Your task to perform on an android device: snooze an email in the gmail app Image 0: 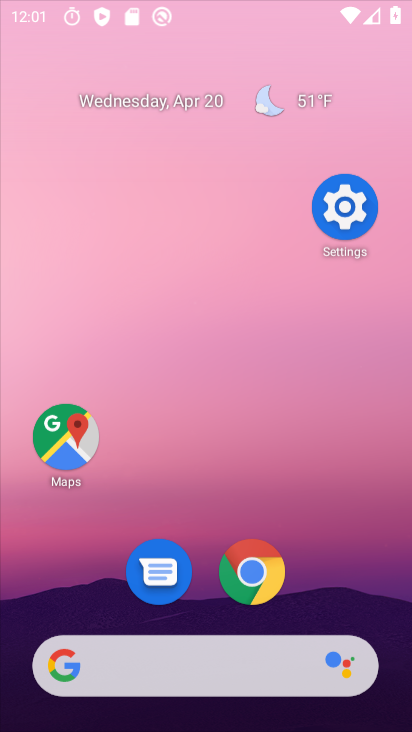
Step 0: drag from (282, 218) to (283, 118)
Your task to perform on an android device: snooze an email in the gmail app Image 1: 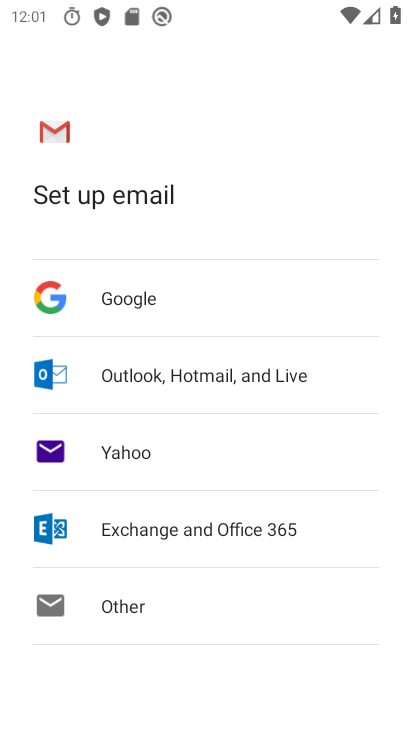
Step 1: press home button
Your task to perform on an android device: snooze an email in the gmail app Image 2: 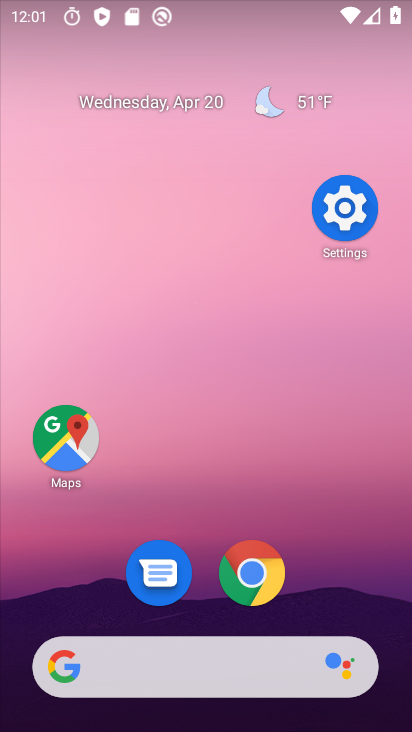
Step 2: drag from (317, 594) to (332, 180)
Your task to perform on an android device: snooze an email in the gmail app Image 3: 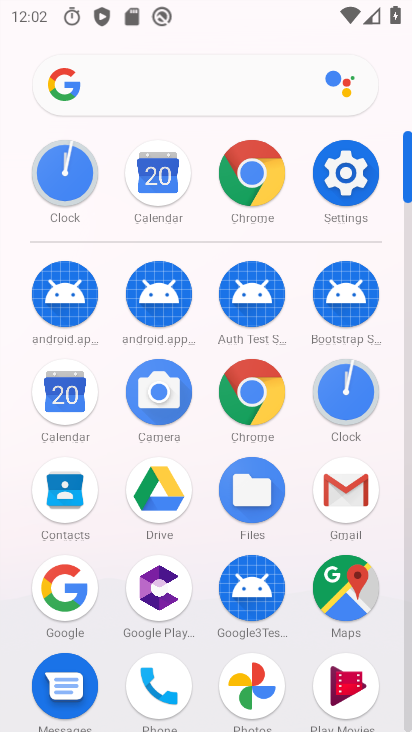
Step 3: click (364, 495)
Your task to perform on an android device: snooze an email in the gmail app Image 4: 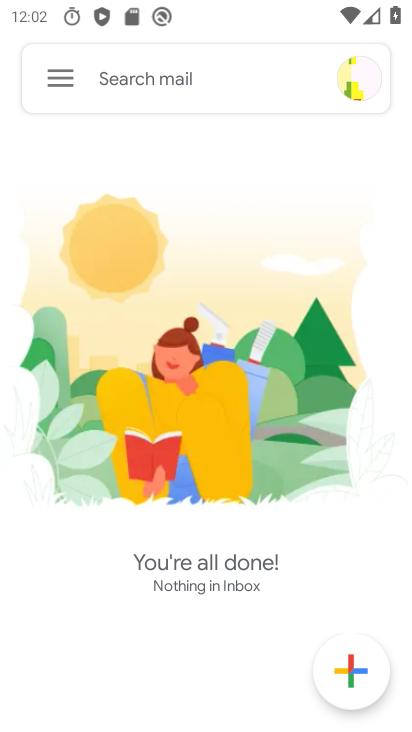
Step 4: click (69, 82)
Your task to perform on an android device: snooze an email in the gmail app Image 5: 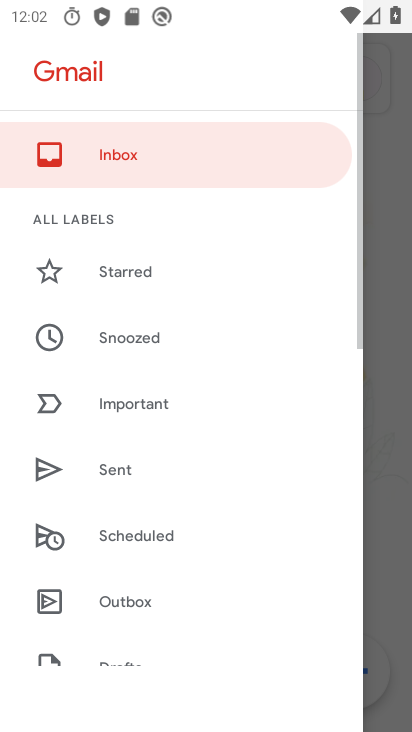
Step 5: task complete